Your task to perform on an android device: toggle improve location accuracy Image 0: 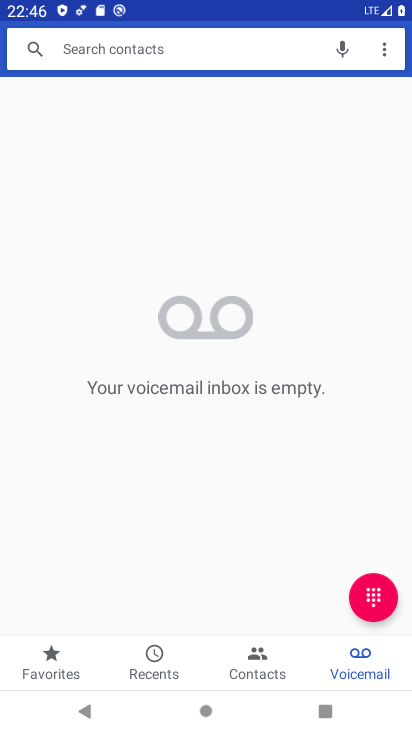
Step 0: press home button
Your task to perform on an android device: toggle improve location accuracy Image 1: 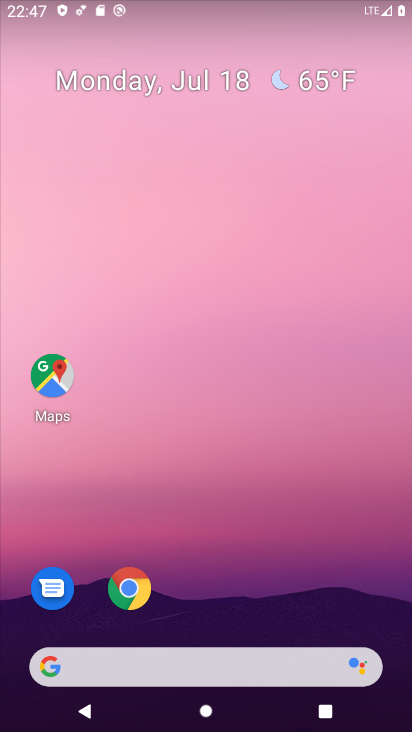
Step 1: drag from (280, 589) to (245, 61)
Your task to perform on an android device: toggle improve location accuracy Image 2: 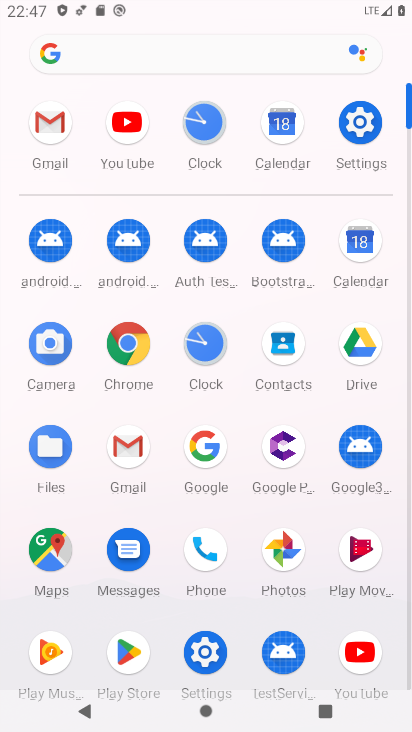
Step 2: click (355, 119)
Your task to perform on an android device: toggle improve location accuracy Image 3: 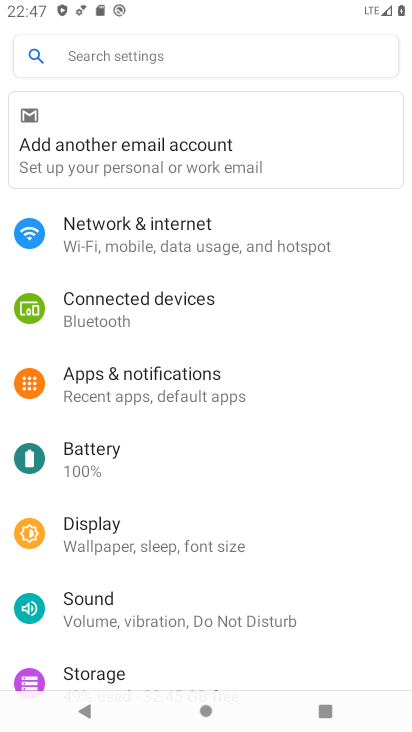
Step 3: drag from (194, 520) to (172, 258)
Your task to perform on an android device: toggle improve location accuracy Image 4: 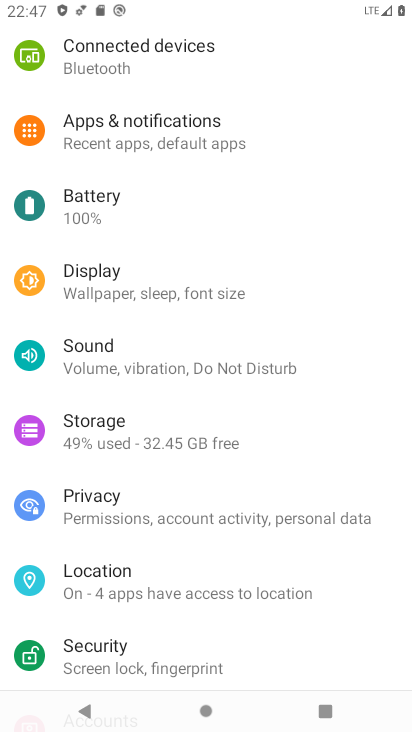
Step 4: click (162, 591)
Your task to perform on an android device: toggle improve location accuracy Image 5: 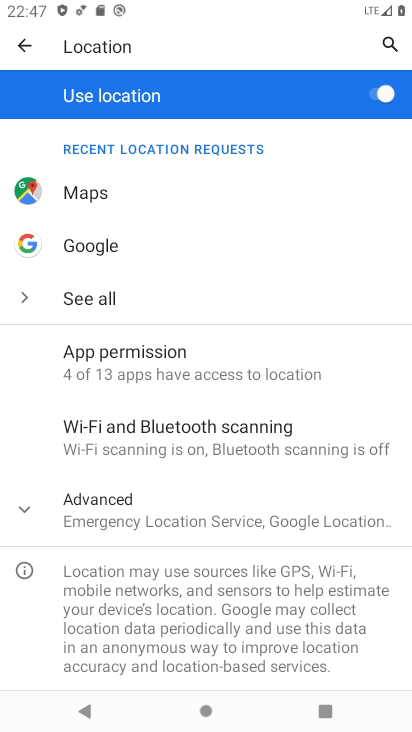
Step 5: click (21, 507)
Your task to perform on an android device: toggle improve location accuracy Image 6: 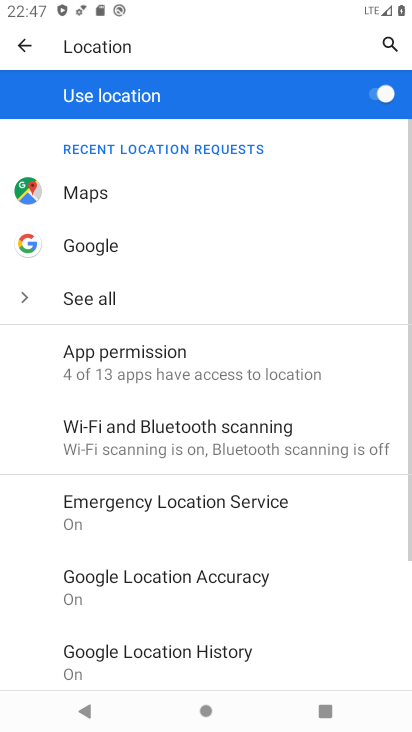
Step 6: click (212, 587)
Your task to perform on an android device: toggle improve location accuracy Image 7: 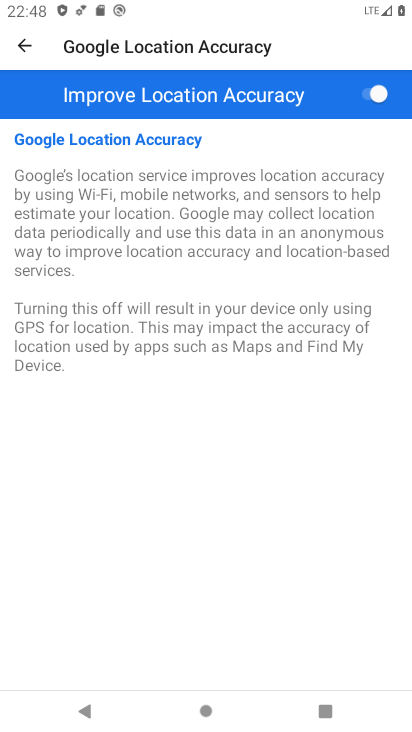
Step 7: click (371, 82)
Your task to perform on an android device: toggle improve location accuracy Image 8: 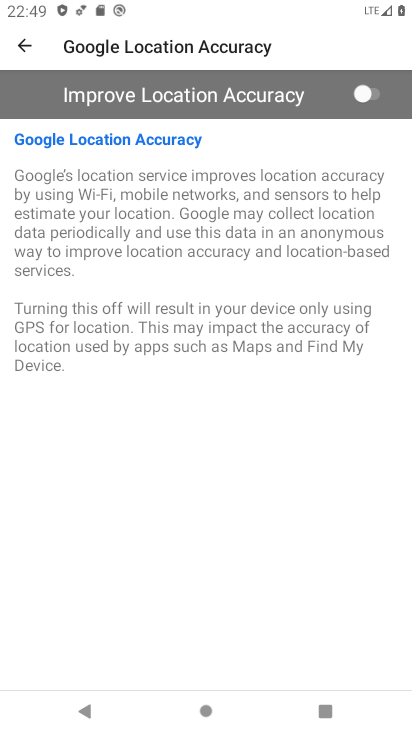
Step 8: task complete